Your task to perform on an android device: check android version Image 0: 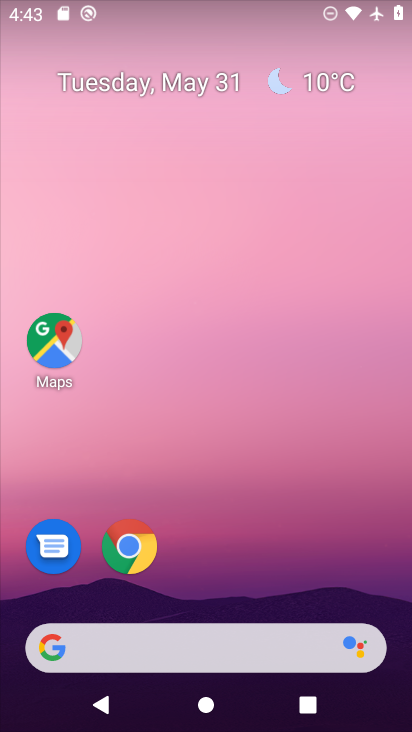
Step 0: drag from (267, 557) to (218, 37)
Your task to perform on an android device: check android version Image 1: 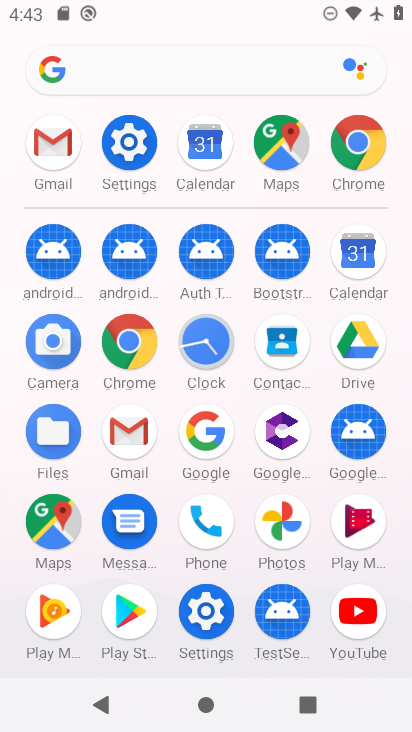
Step 1: click (132, 151)
Your task to perform on an android device: check android version Image 2: 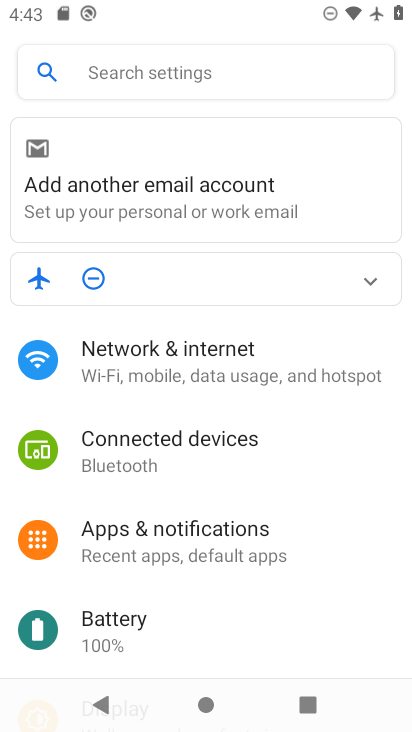
Step 2: drag from (257, 513) to (234, 35)
Your task to perform on an android device: check android version Image 3: 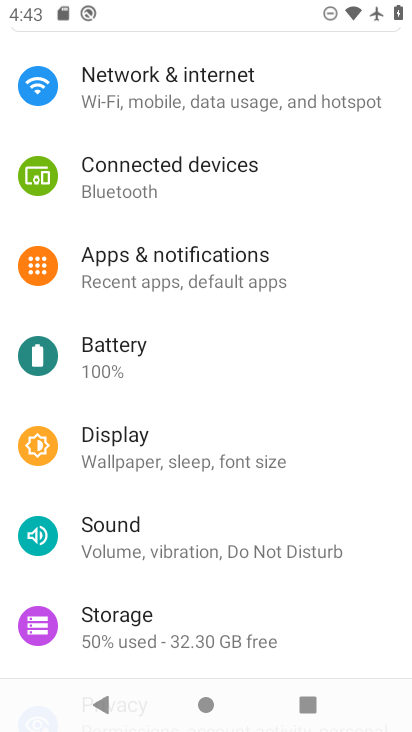
Step 3: drag from (220, 466) to (202, 50)
Your task to perform on an android device: check android version Image 4: 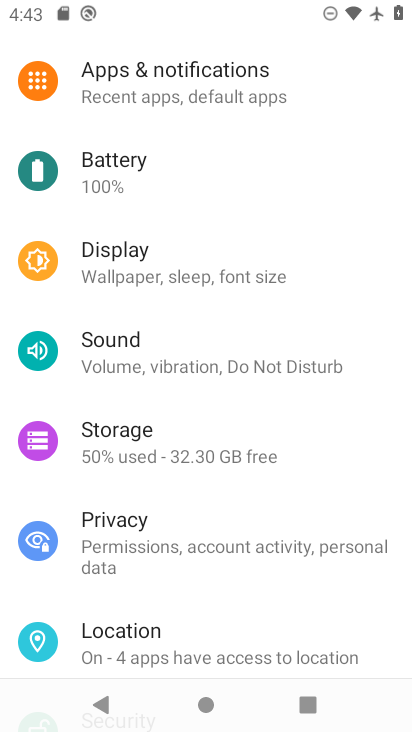
Step 4: drag from (194, 564) to (207, 101)
Your task to perform on an android device: check android version Image 5: 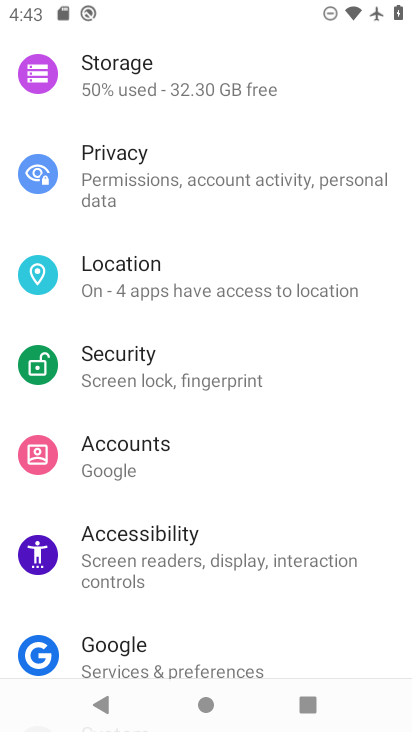
Step 5: drag from (191, 615) to (197, 100)
Your task to perform on an android device: check android version Image 6: 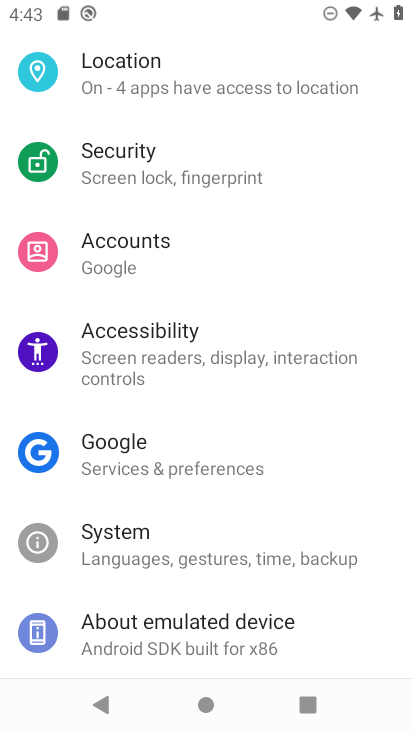
Step 6: click (186, 612)
Your task to perform on an android device: check android version Image 7: 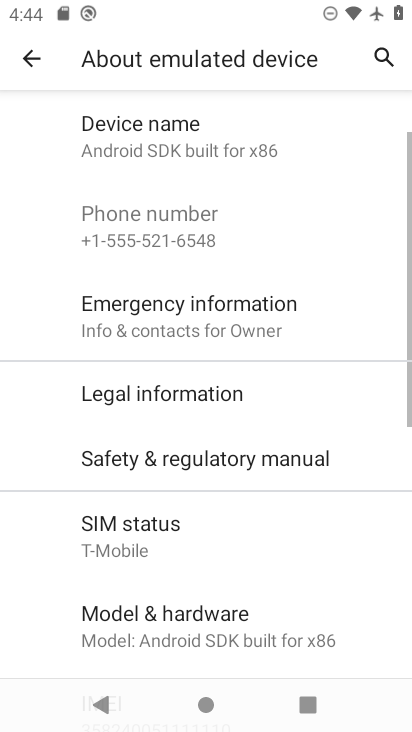
Step 7: drag from (233, 531) to (213, 68)
Your task to perform on an android device: check android version Image 8: 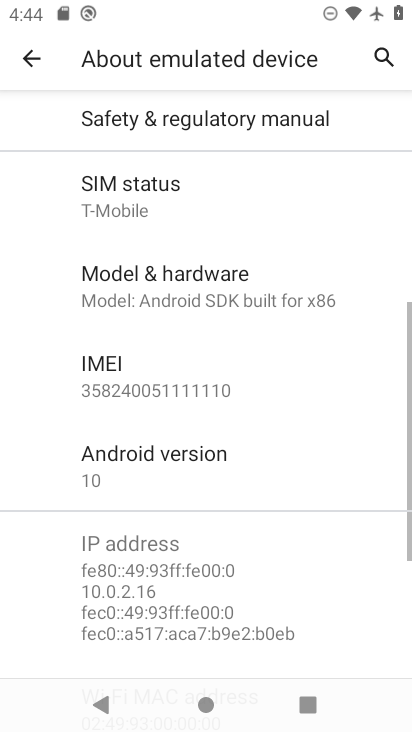
Step 8: click (173, 449)
Your task to perform on an android device: check android version Image 9: 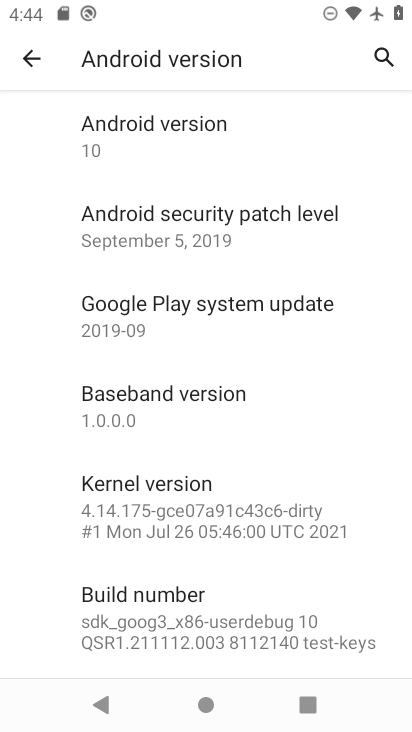
Step 9: task complete